Your task to perform on an android device: clear history in the chrome app Image 0: 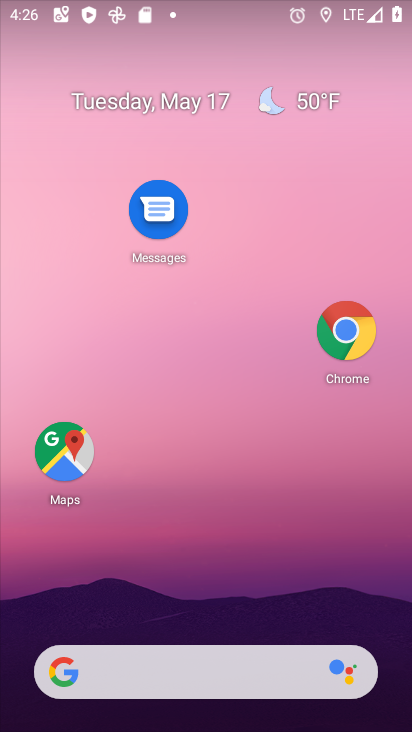
Step 0: click (333, 331)
Your task to perform on an android device: clear history in the chrome app Image 1: 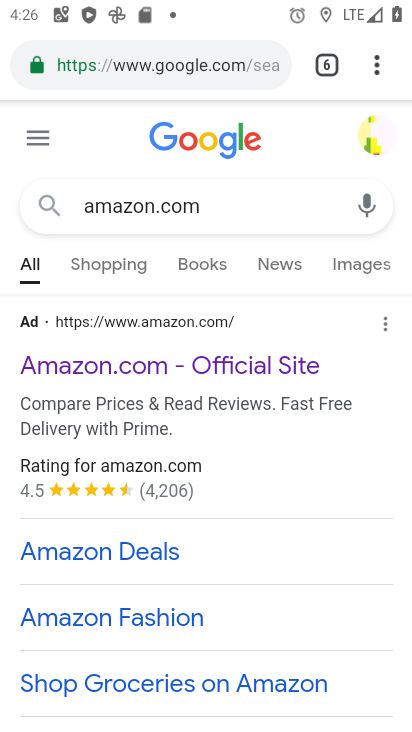
Step 1: click (375, 86)
Your task to perform on an android device: clear history in the chrome app Image 2: 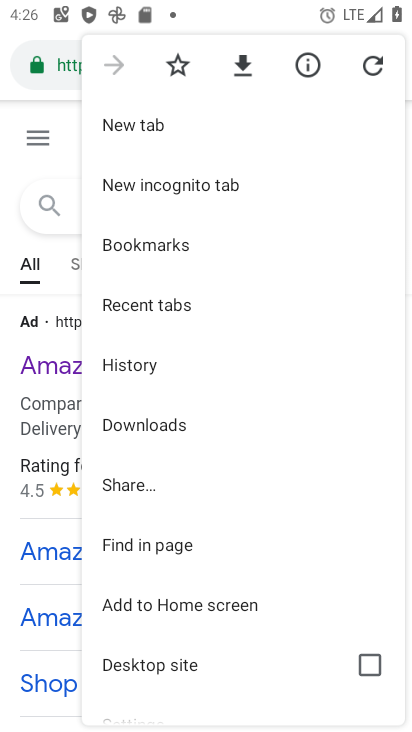
Step 2: click (208, 368)
Your task to perform on an android device: clear history in the chrome app Image 3: 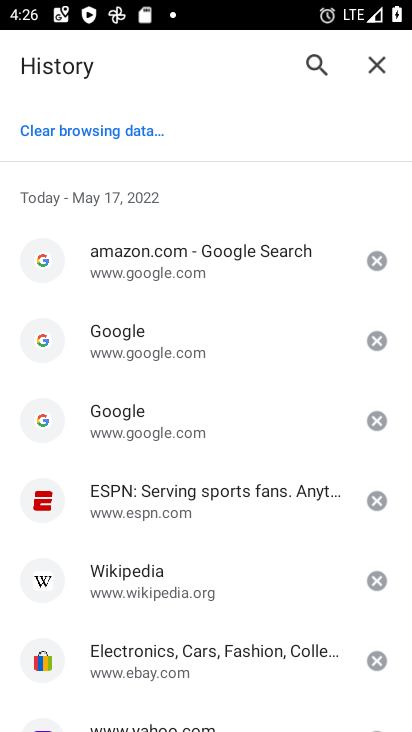
Step 3: click (92, 117)
Your task to perform on an android device: clear history in the chrome app Image 4: 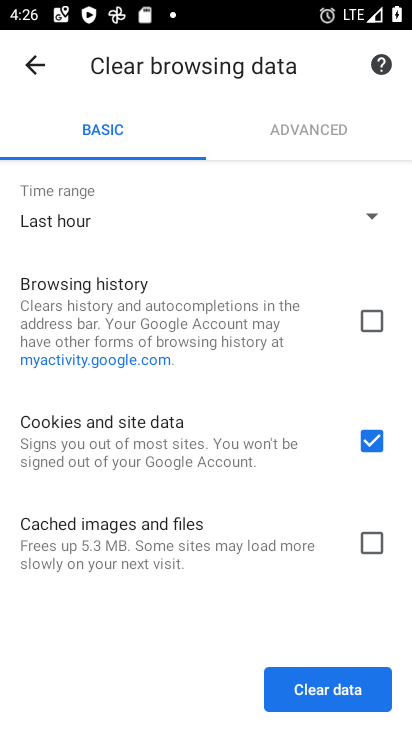
Step 4: click (362, 453)
Your task to perform on an android device: clear history in the chrome app Image 5: 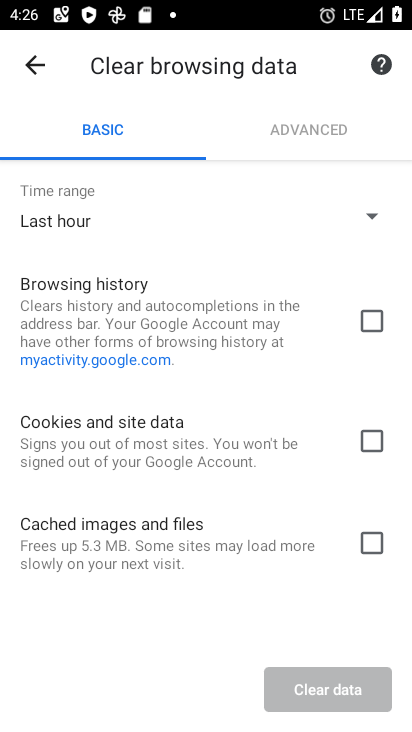
Step 5: click (362, 328)
Your task to perform on an android device: clear history in the chrome app Image 6: 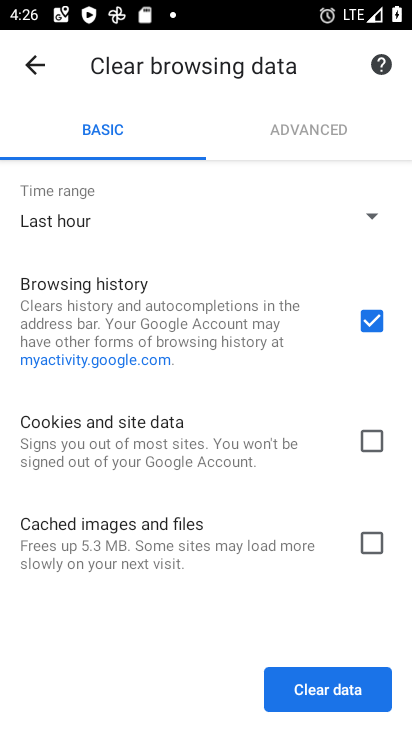
Step 6: click (321, 692)
Your task to perform on an android device: clear history in the chrome app Image 7: 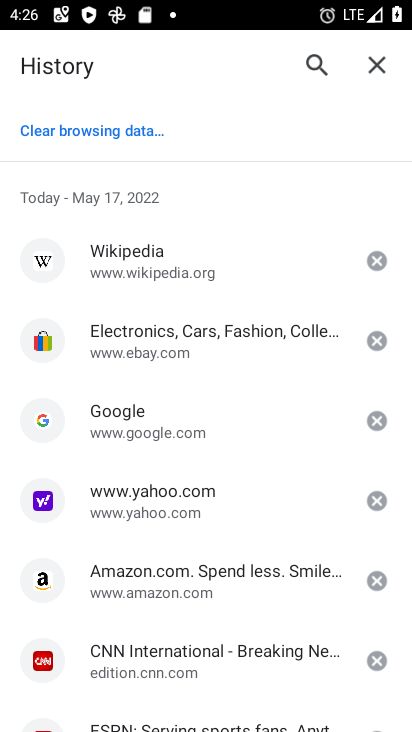
Step 7: task complete